Your task to perform on an android device: turn off sleep mode Image 0: 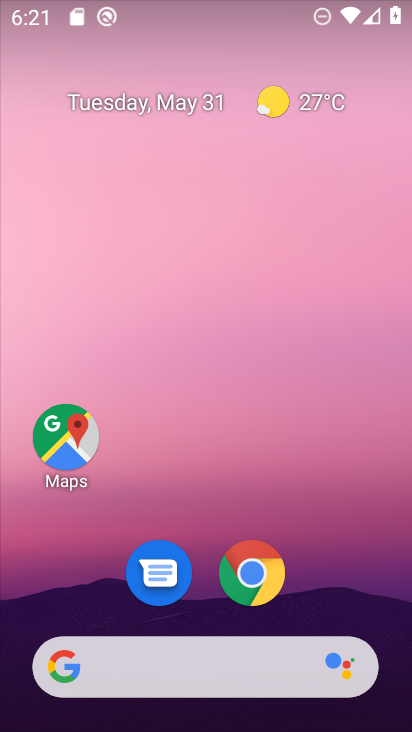
Step 0: drag from (386, 621) to (202, 44)
Your task to perform on an android device: turn off sleep mode Image 1: 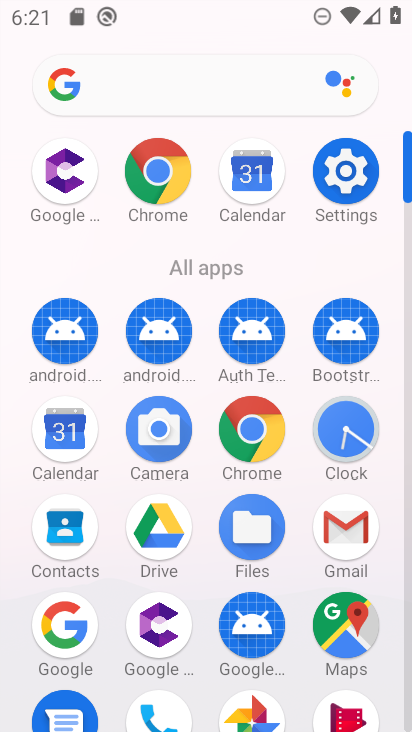
Step 1: click (343, 165)
Your task to perform on an android device: turn off sleep mode Image 2: 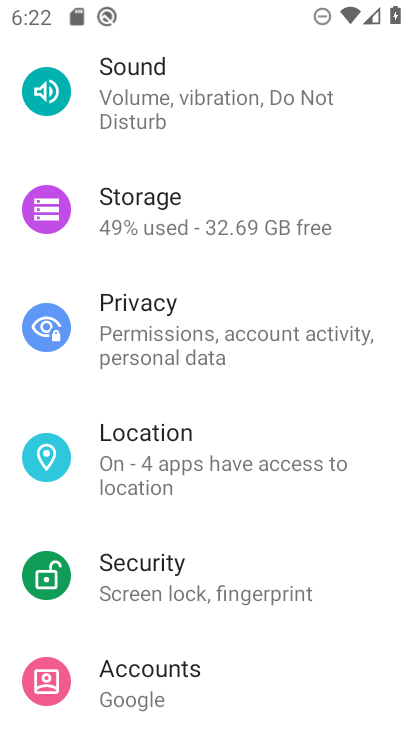
Step 2: task complete